Your task to perform on an android device: delete browsing data in the chrome app Image 0: 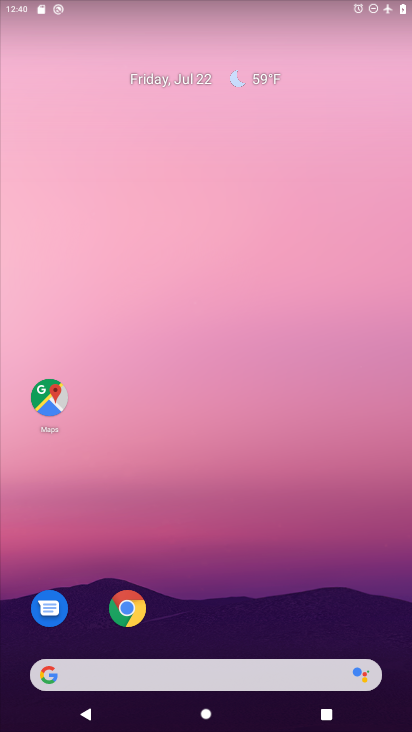
Step 0: drag from (361, 621) to (137, 3)
Your task to perform on an android device: delete browsing data in the chrome app Image 1: 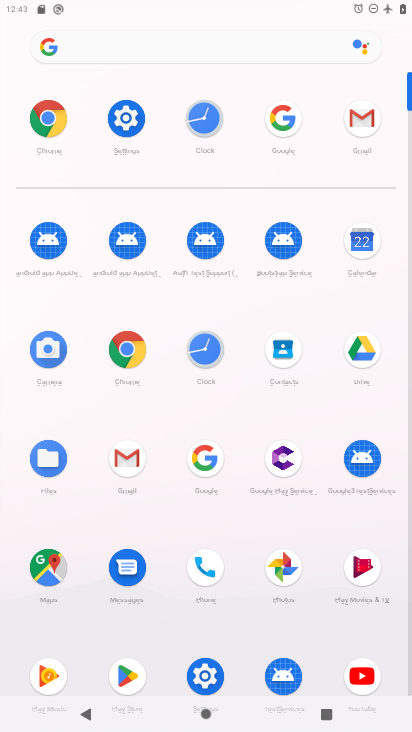
Step 1: click (131, 348)
Your task to perform on an android device: delete browsing data in the chrome app Image 2: 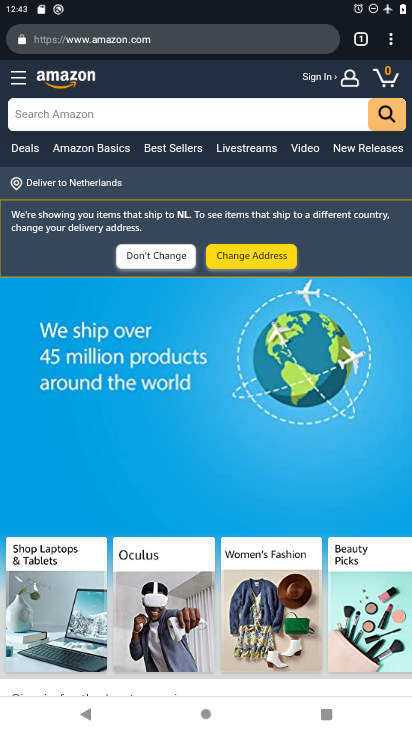
Step 2: click (391, 38)
Your task to perform on an android device: delete browsing data in the chrome app Image 3: 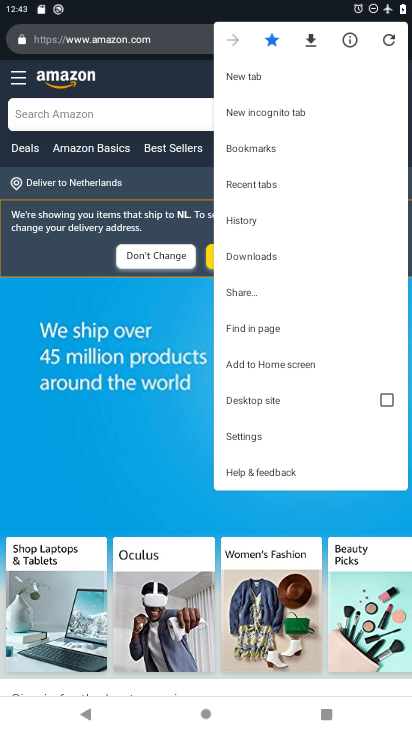
Step 3: click (244, 220)
Your task to perform on an android device: delete browsing data in the chrome app Image 4: 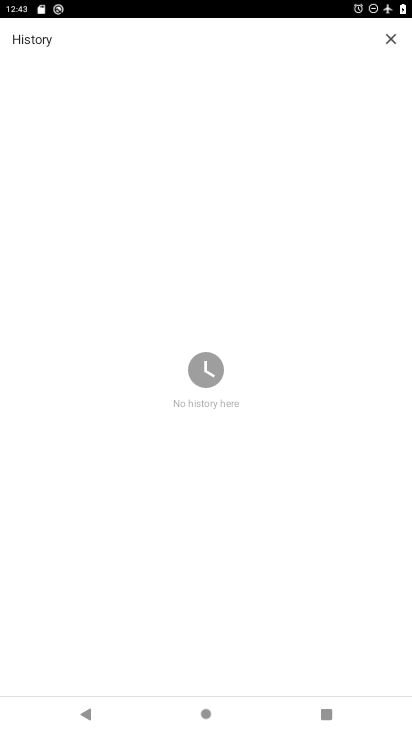
Step 4: task complete